Your task to perform on an android device: turn off notifications settings in the gmail app Image 0: 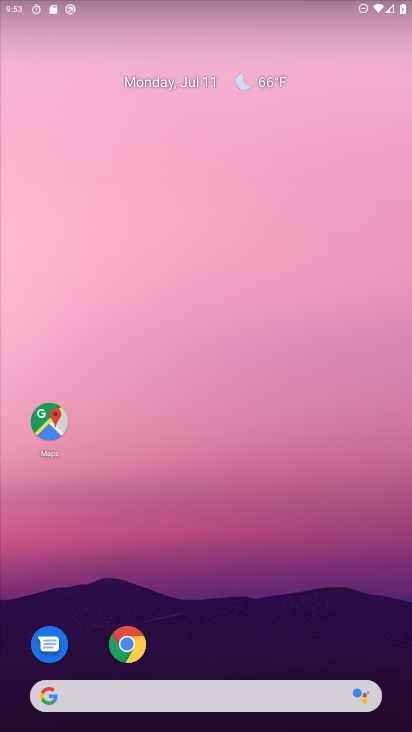
Step 0: drag from (273, 601) to (208, 101)
Your task to perform on an android device: turn off notifications settings in the gmail app Image 1: 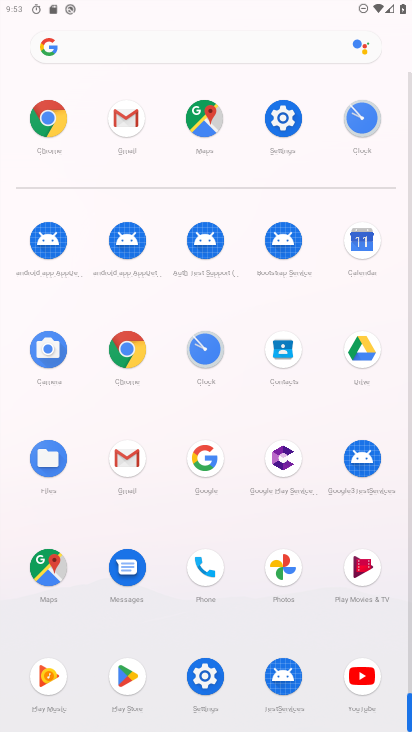
Step 1: click (125, 119)
Your task to perform on an android device: turn off notifications settings in the gmail app Image 2: 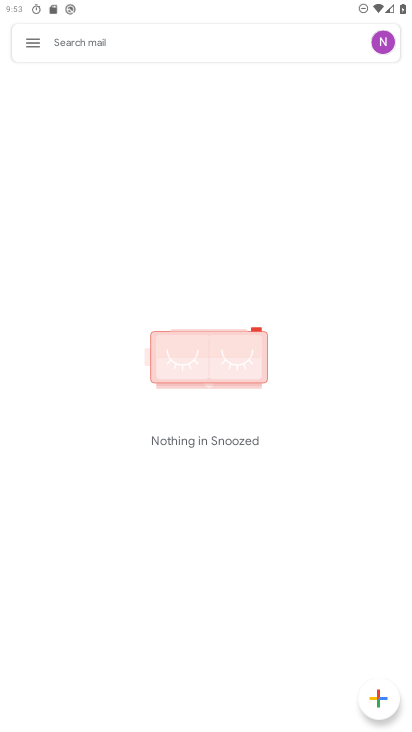
Step 2: click (29, 38)
Your task to perform on an android device: turn off notifications settings in the gmail app Image 3: 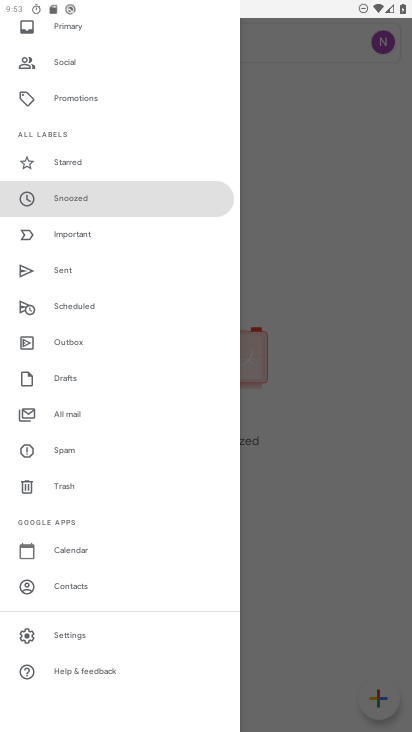
Step 3: click (78, 634)
Your task to perform on an android device: turn off notifications settings in the gmail app Image 4: 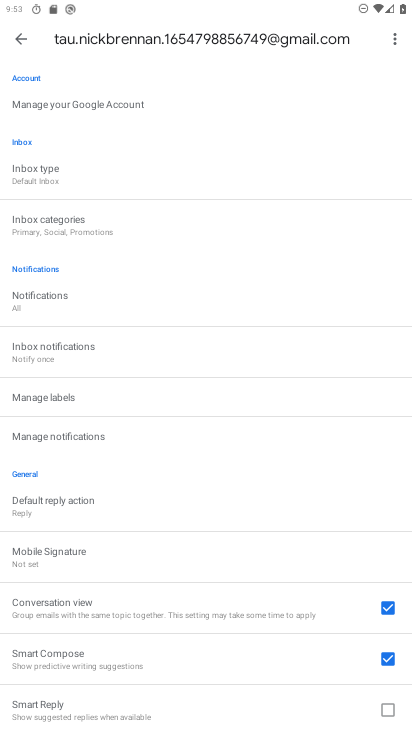
Step 4: click (84, 434)
Your task to perform on an android device: turn off notifications settings in the gmail app Image 5: 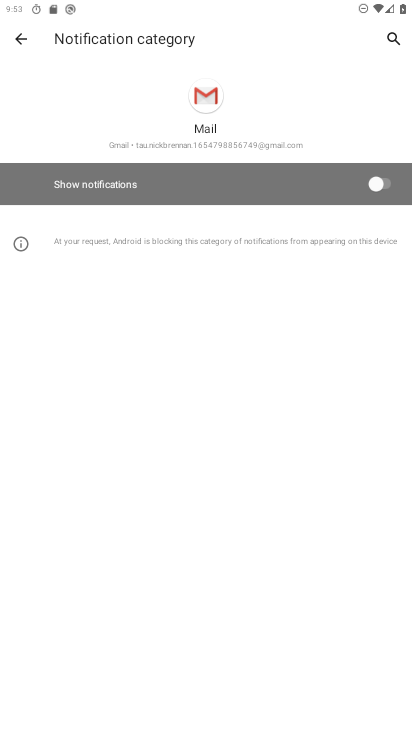
Step 5: task complete